Your task to perform on an android device: change your default location settings in chrome Image 0: 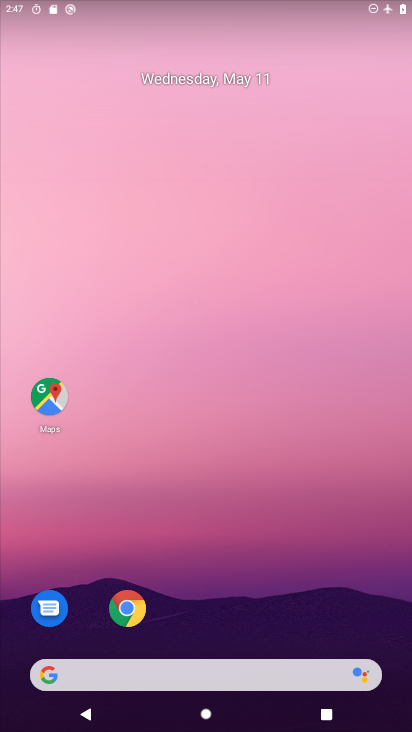
Step 0: click (133, 614)
Your task to perform on an android device: change your default location settings in chrome Image 1: 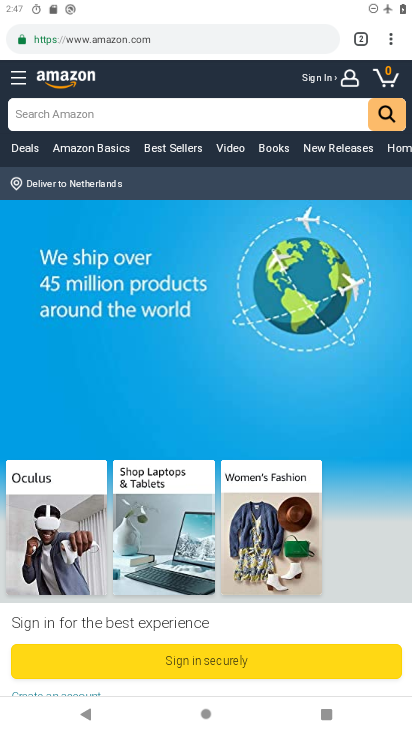
Step 1: click (389, 41)
Your task to perform on an android device: change your default location settings in chrome Image 2: 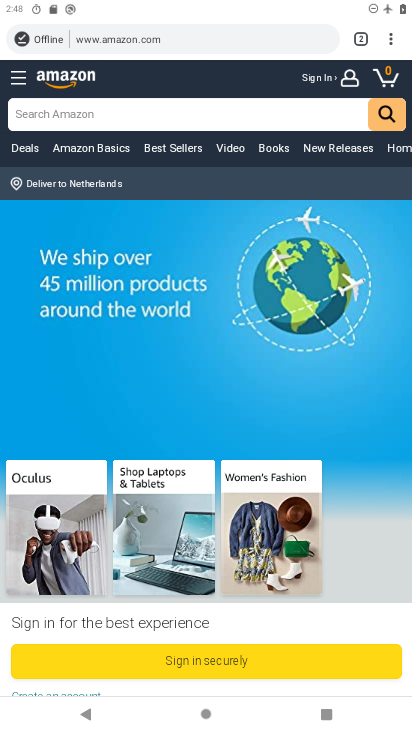
Step 2: click (389, 41)
Your task to perform on an android device: change your default location settings in chrome Image 3: 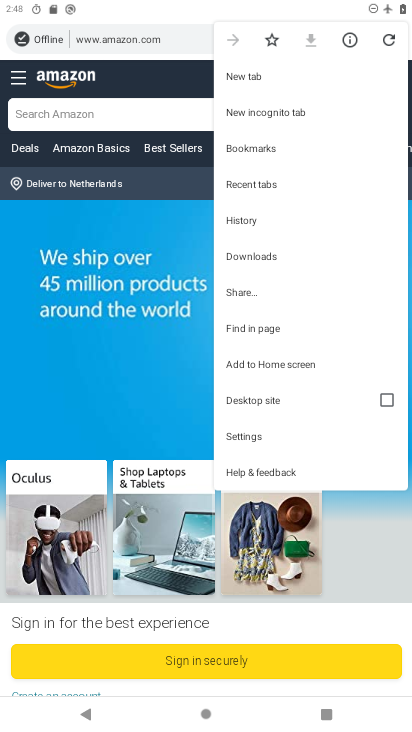
Step 3: click (267, 440)
Your task to perform on an android device: change your default location settings in chrome Image 4: 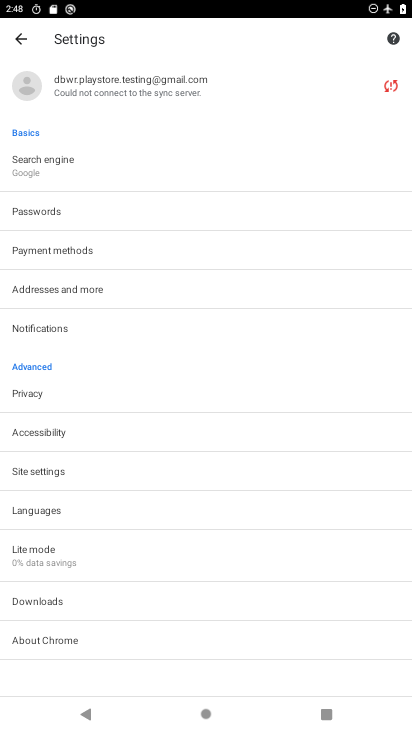
Step 4: drag from (304, 543) to (340, 217)
Your task to perform on an android device: change your default location settings in chrome Image 5: 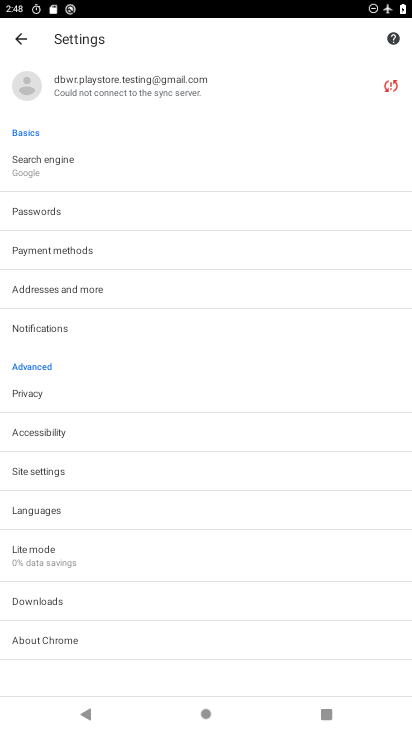
Step 5: click (150, 464)
Your task to perform on an android device: change your default location settings in chrome Image 6: 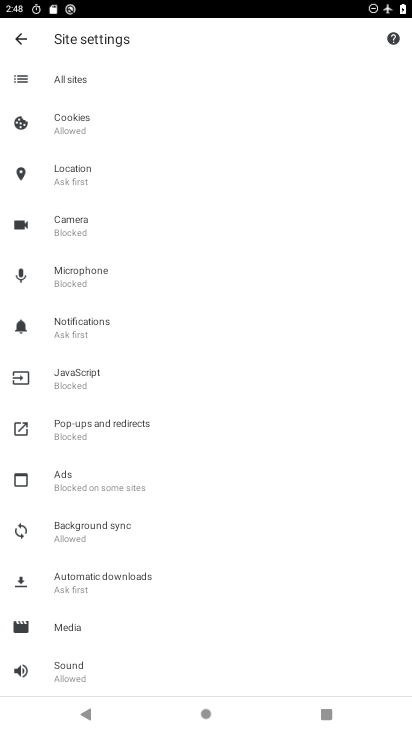
Step 6: click (180, 183)
Your task to perform on an android device: change your default location settings in chrome Image 7: 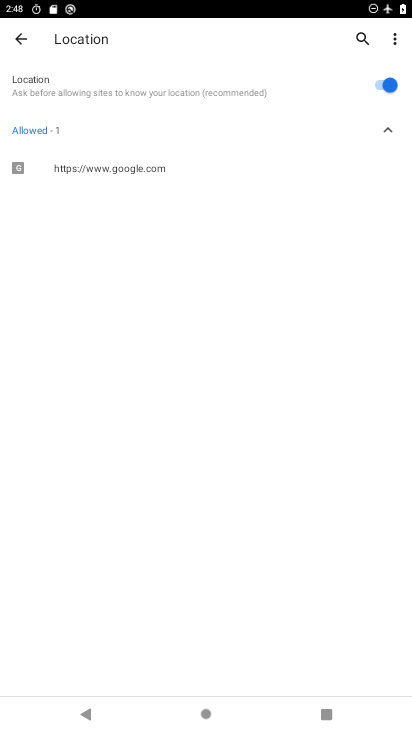
Step 7: click (16, 42)
Your task to perform on an android device: change your default location settings in chrome Image 8: 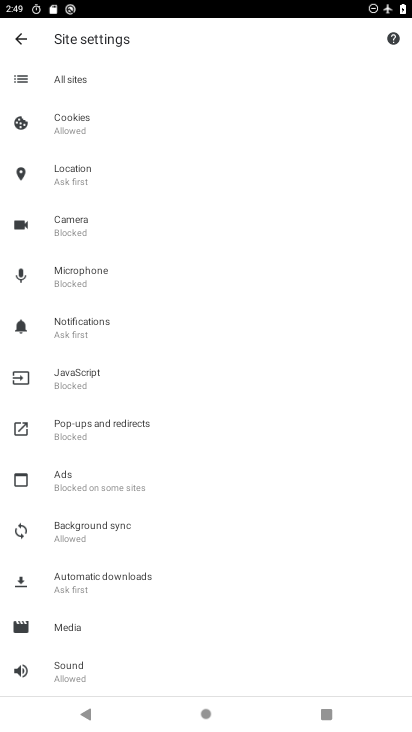
Step 8: click (69, 191)
Your task to perform on an android device: change your default location settings in chrome Image 9: 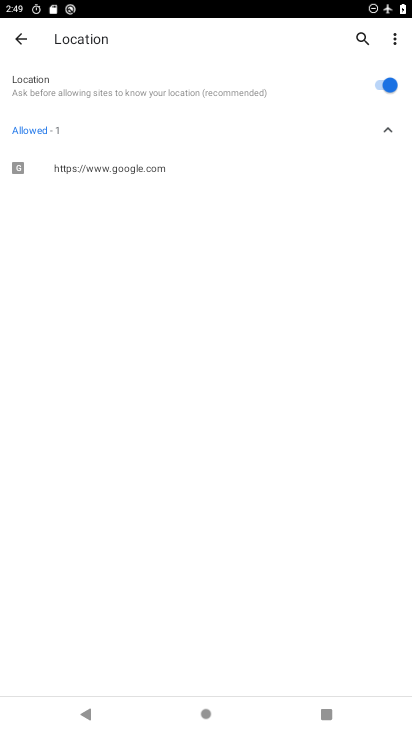
Step 9: click (385, 83)
Your task to perform on an android device: change your default location settings in chrome Image 10: 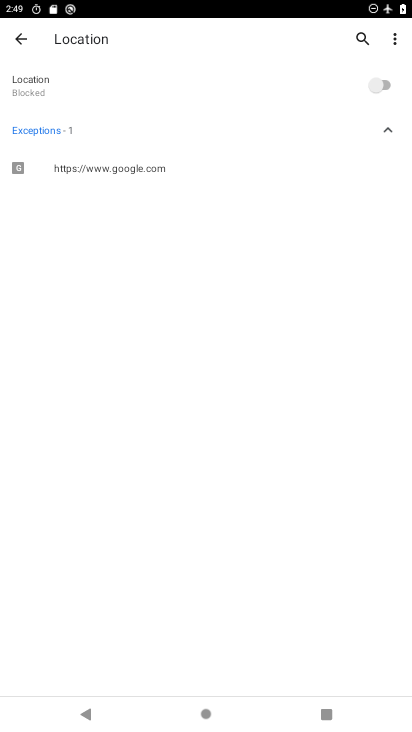
Step 10: task complete